Your task to perform on an android device: change the clock style Image 0: 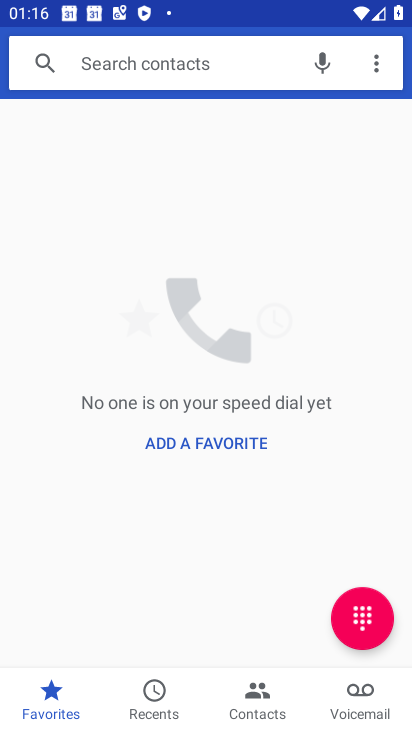
Step 0: press home button
Your task to perform on an android device: change the clock style Image 1: 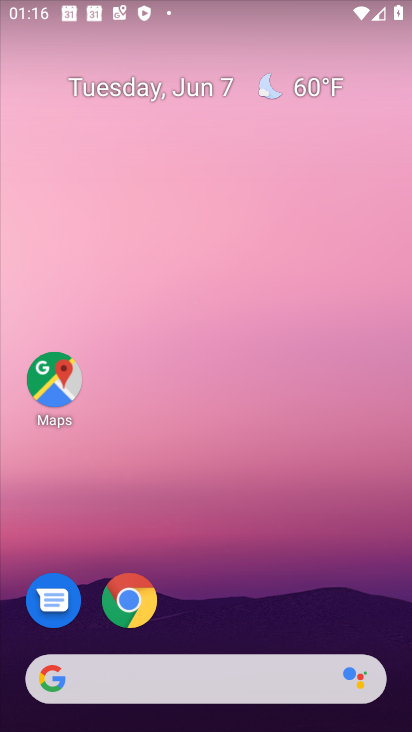
Step 1: drag from (204, 727) to (196, 259)
Your task to perform on an android device: change the clock style Image 2: 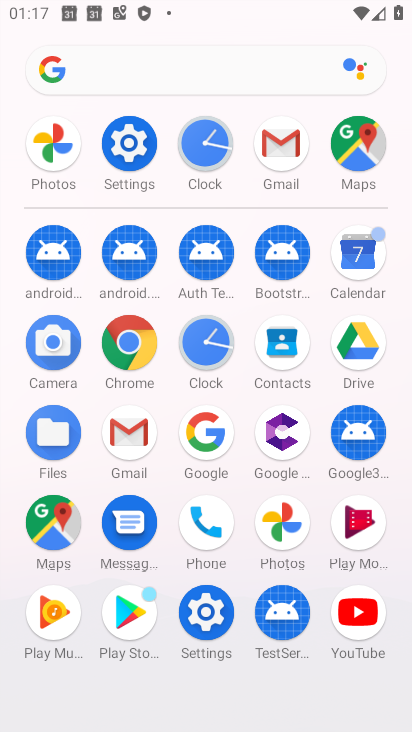
Step 2: click (200, 352)
Your task to perform on an android device: change the clock style Image 3: 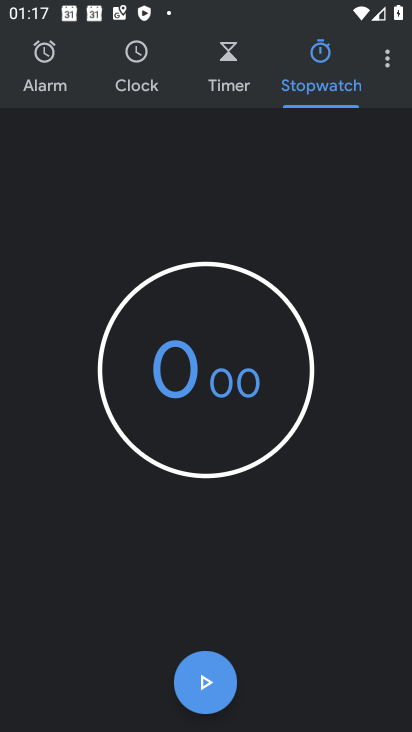
Step 3: click (389, 64)
Your task to perform on an android device: change the clock style Image 4: 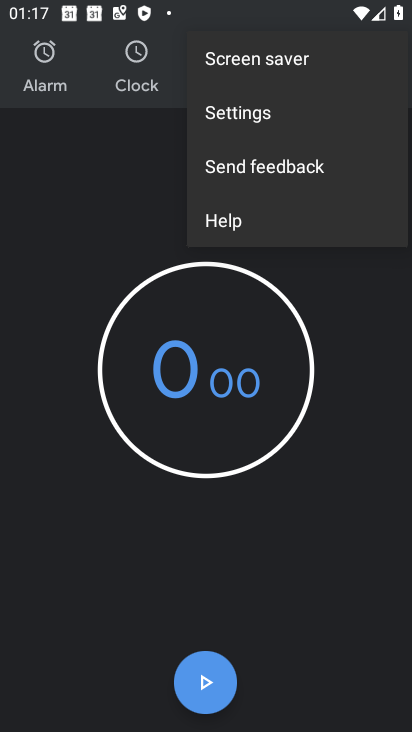
Step 4: click (217, 112)
Your task to perform on an android device: change the clock style Image 5: 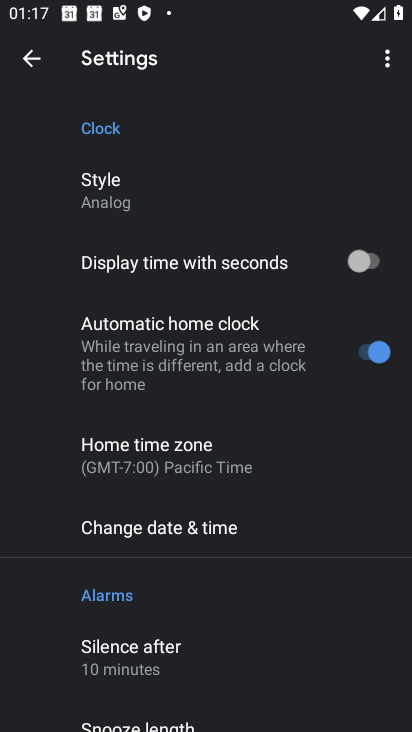
Step 5: click (109, 197)
Your task to perform on an android device: change the clock style Image 6: 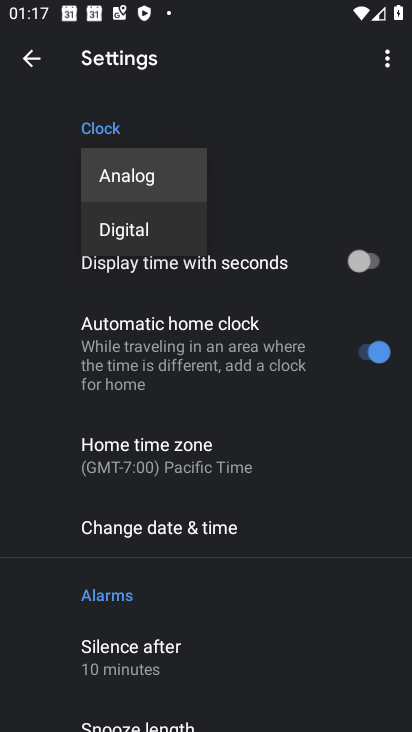
Step 6: click (129, 231)
Your task to perform on an android device: change the clock style Image 7: 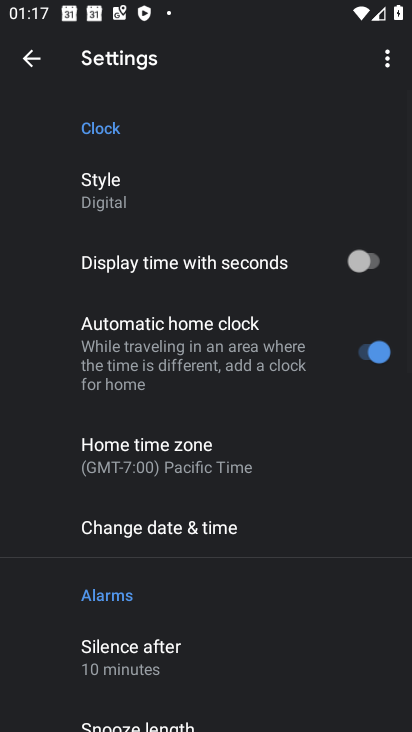
Step 7: task complete